Your task to perform on an android device: Open Youtube and go to the subscriptions tab Image 0: 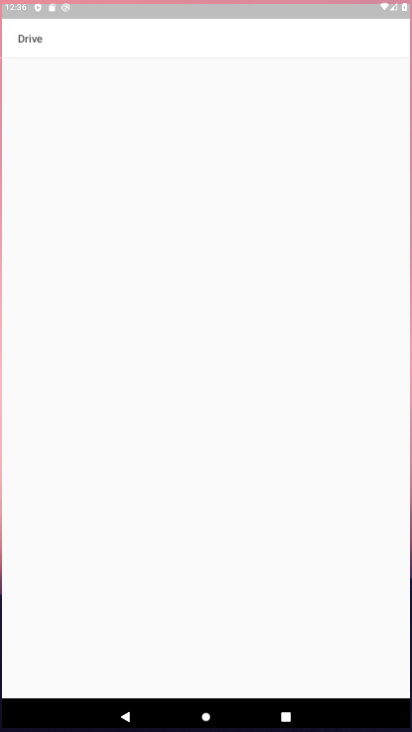
Step 0: press home button
Your task to perform on an android device: Open Youtube and go to the subscriptions tab Image 1: 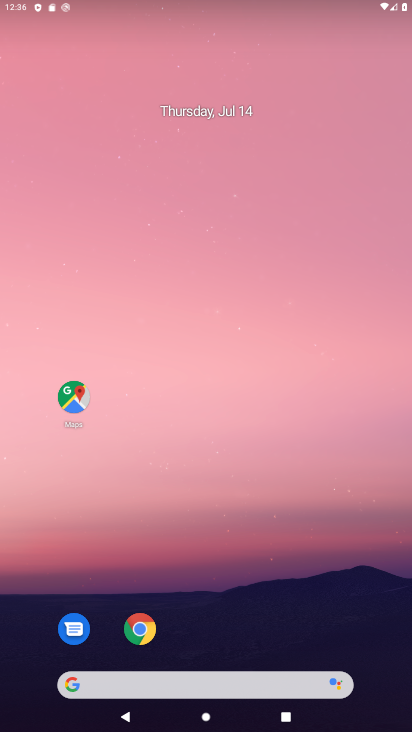
Step 1: drag from (206, 665) to (247, 81)
Your task to perform on an android device: Open Youtube and go to the subscriptions tab Image 2: 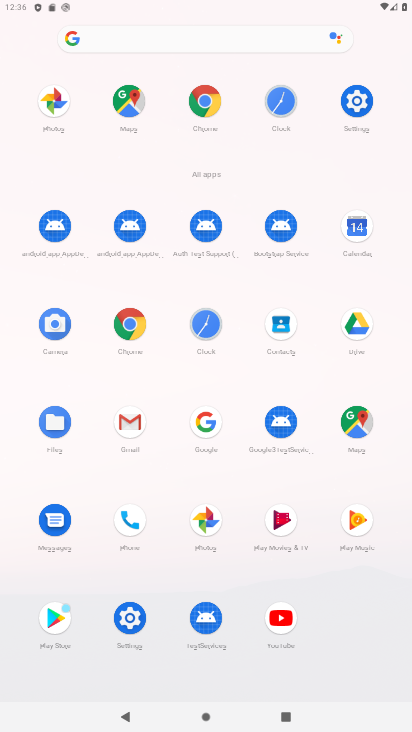
Step 2: click (276, 620)
Your task to perform on an android device: Open Youtube and go to the subscriptions tab Image 3: 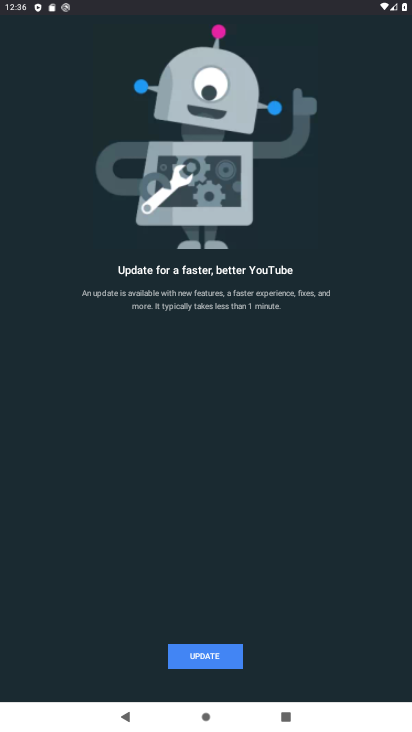
Step 3: click (206, 655)
Your task to perform on an android device: Open Youtube and go to the subscriptions tab Image 4: 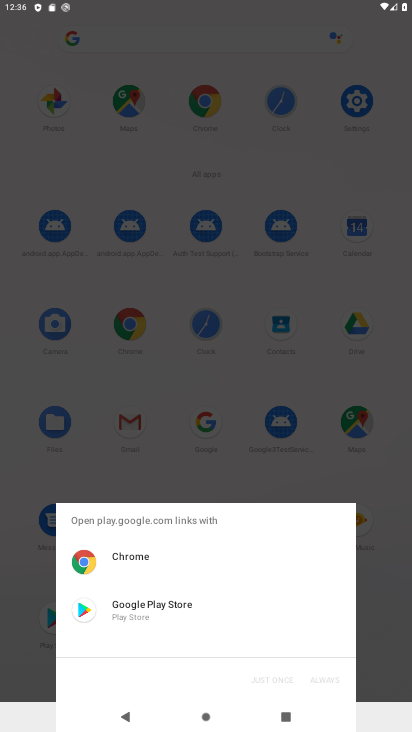
Step 4: click (122, 610)
Your task to perform on an android device: Open Youtube and go to the subscriptions tab Image 5: 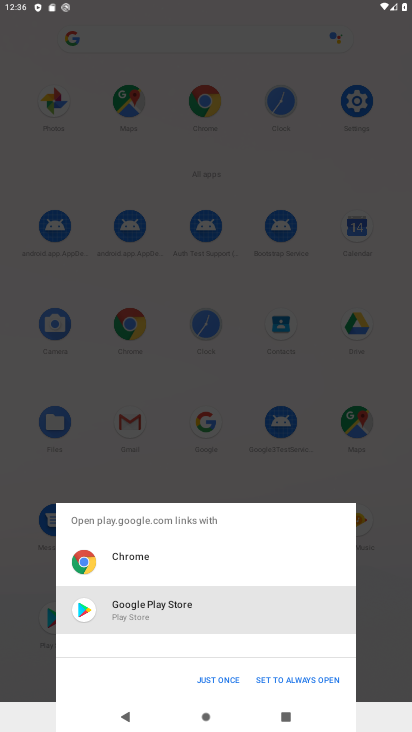
Step 5: click (217, 680)
Your task to perform on an android device: Open Youtube and go to the subscriptions tab Image 6: 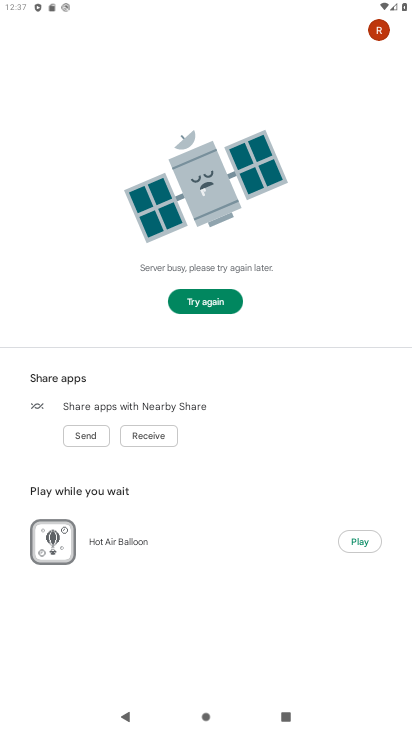
Step 6: task complete